Your task to perform on an android device: open sync settings in chrome Image 0: 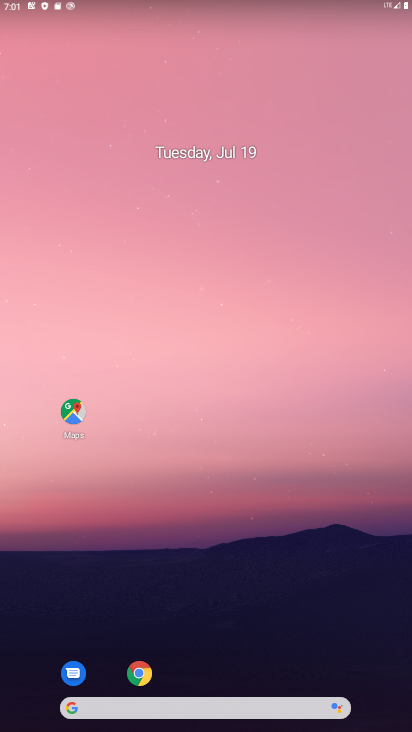
Step 0: drag from (365, 634) to (197, 4)
Your task to perform on an android device: open sync settings in chrome Image 1: 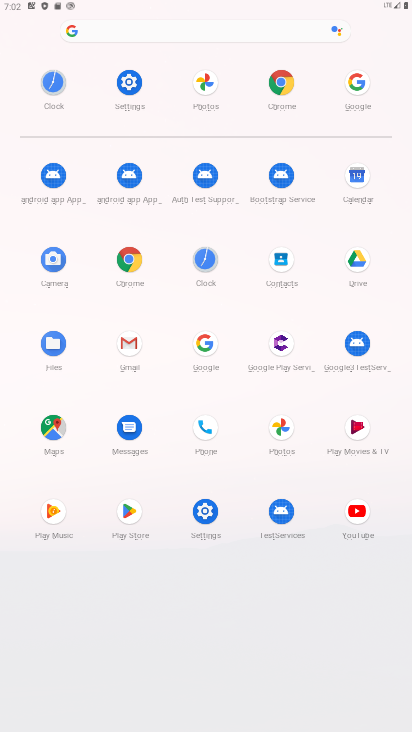
Step 1: click (127, 256)
Your task to perform on an android device: open sync settings in chrome Image 2: 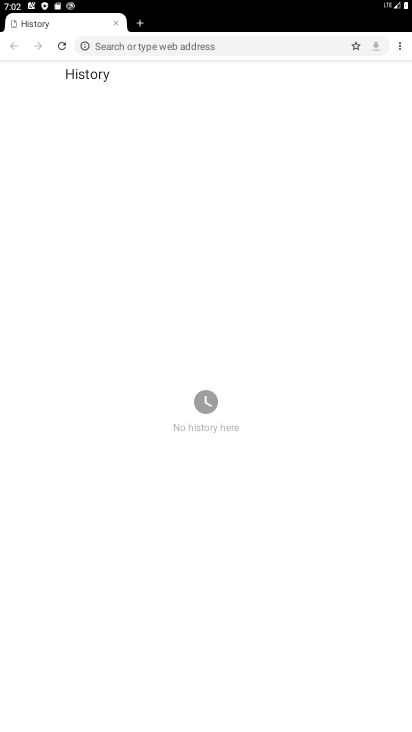
Step 2: click (398, 40)
Your task to perform on an android device: open sync settings in chrome Image 3: 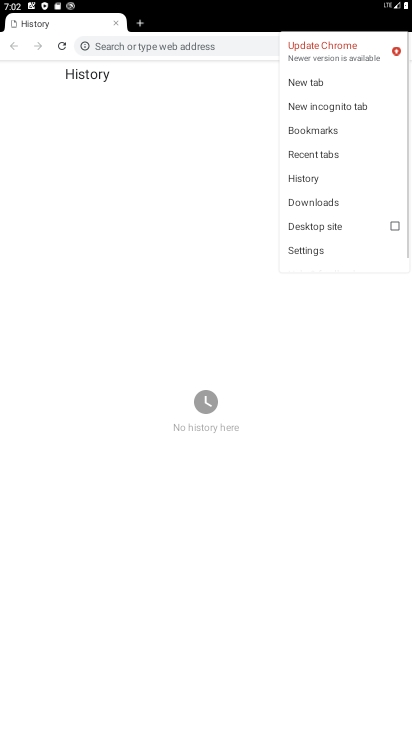
Step 3: click (308, 243)
Your task to perform on an android device: open sync settings in chrome Image 4: 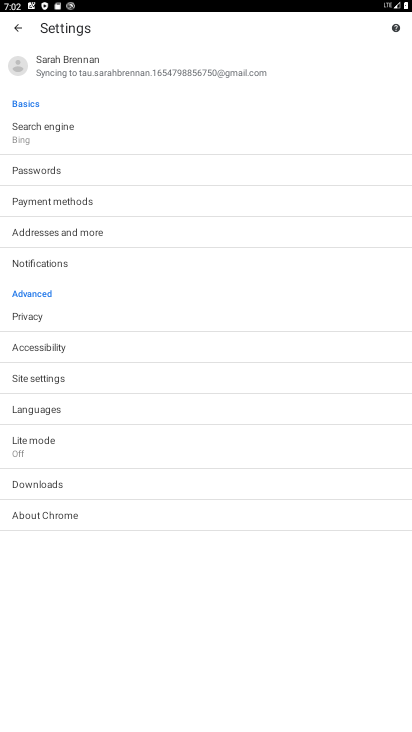
Step 4: click (47, 376)
Your task to perform on an android device: open sync settings in chrome Image 5: 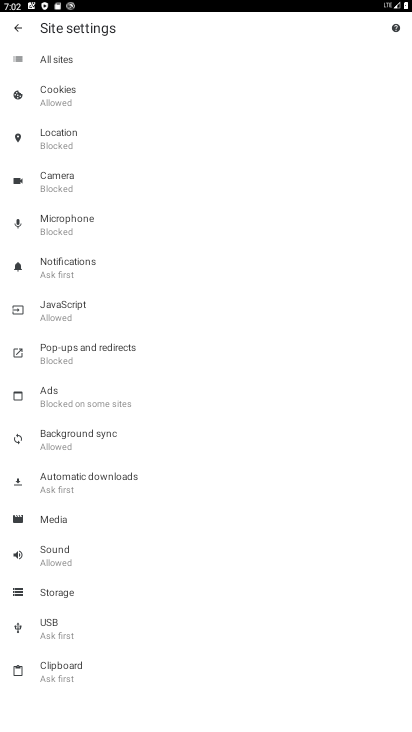
Step 5: click (104, 437)
Your task to perform on an android device: open sync settings in chrome Image 6: 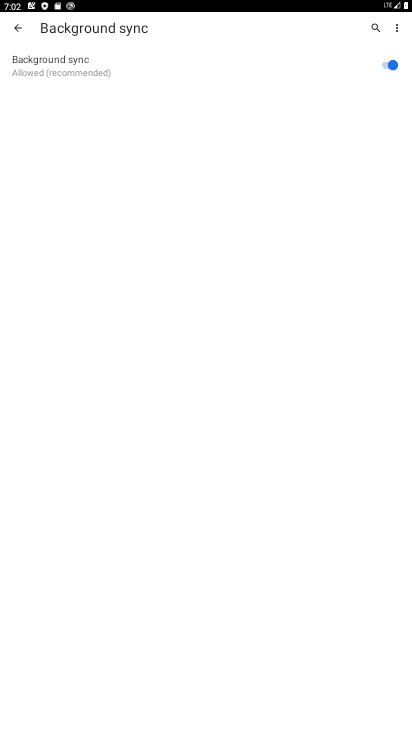
Step 6: task complete